Your task to perform on an android device: add a contact Image 0: 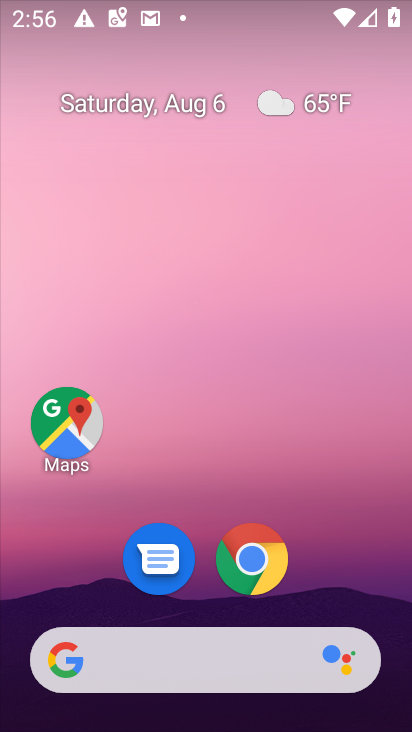
Step 0: drag from (231, 463) to (231, 125)
Your task to perform on an android device: add a contact Image 1: 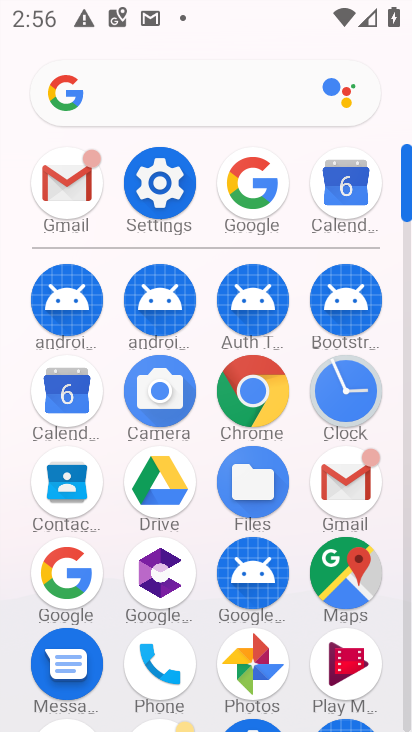
Step 1: click (62, 493)
Your task to perform on an android device: add a contact Image 2: 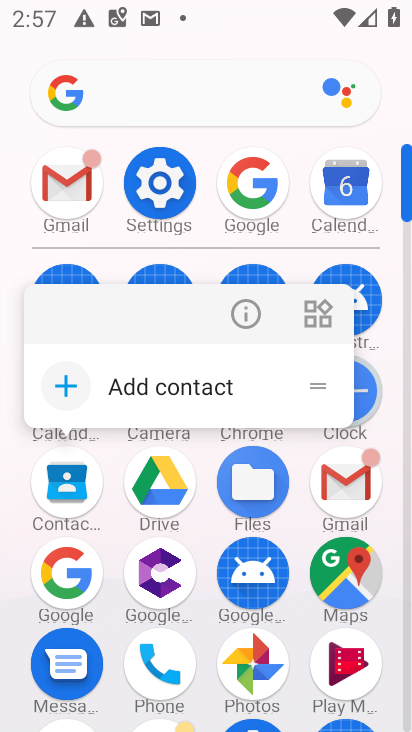
Step 2: click (82, 486)
Your task to perform on an android device: add a contact Image 3: 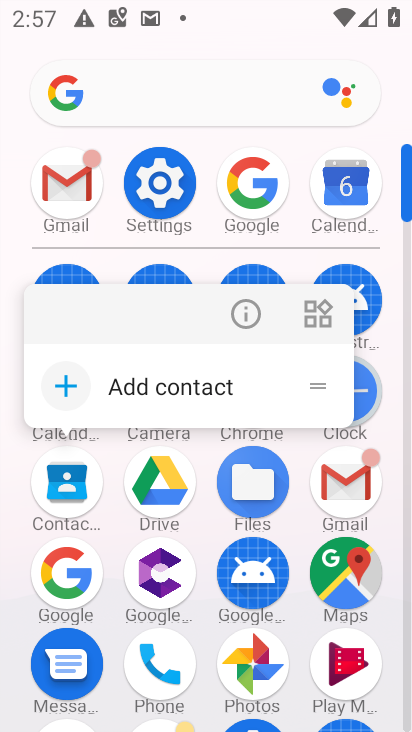
Step 3: click (80, 467)
Your task to perform on an android device: add a contact Image 4: 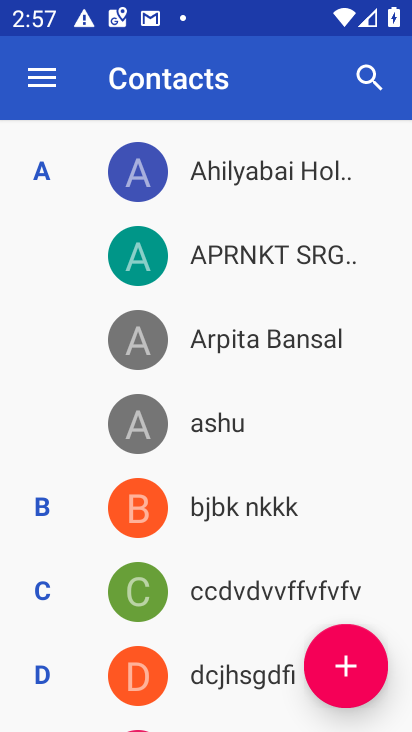
Step 4: click (316, 677)
Your task to perform on an android device: add a contact Image 5: 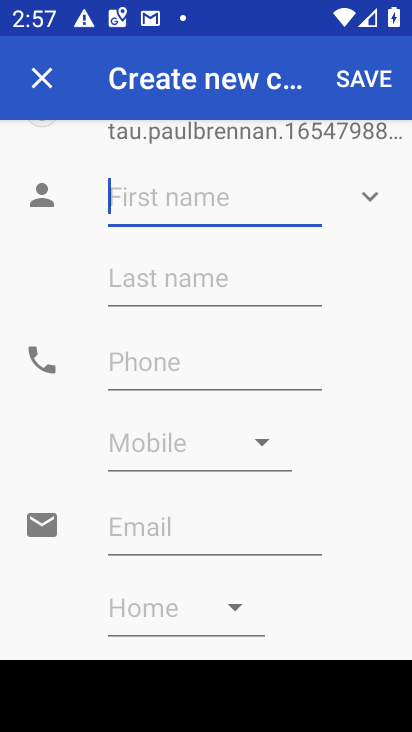
Step 5: type "gngvn"
Your task to perform on an android device: add a contact Image 6: 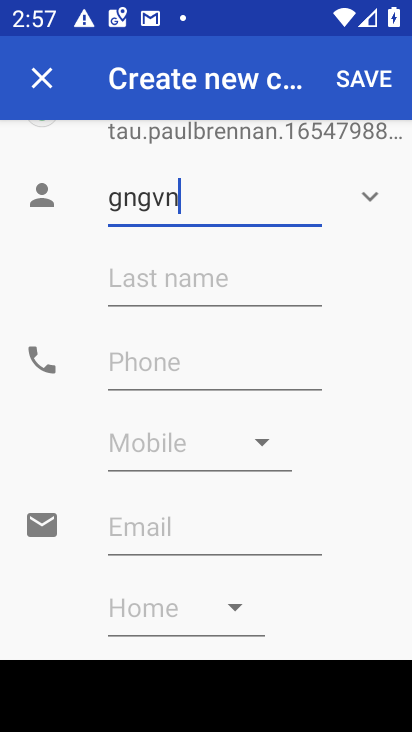
Step 6: type ""
Your task to perform on an android device: add a contact Image 7: 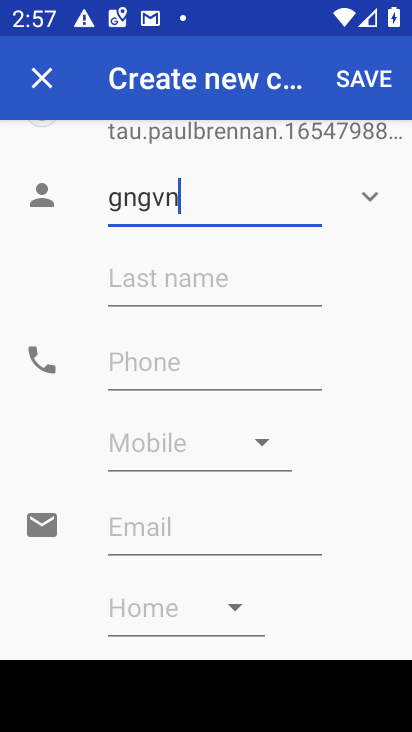
Step 7: click (214, 380)
Your task to perform on an android device: add a contact Image 8: 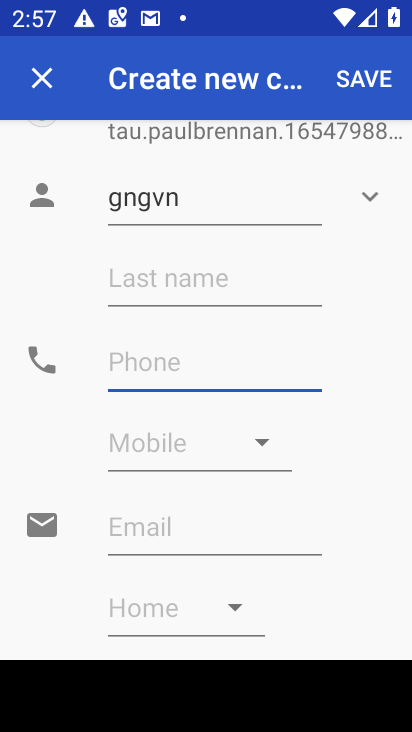
Step 8: type "745754754745"
Your task to perform on an android device: add a contact Image 9: 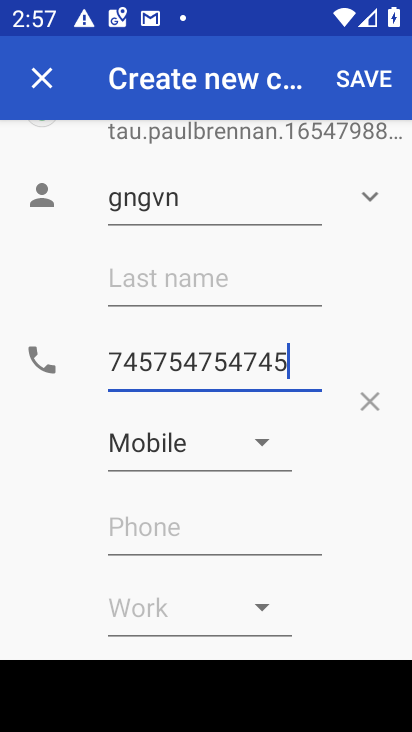
Step 9: type ""
Your task to perform on an android device: add a contact Image 10: 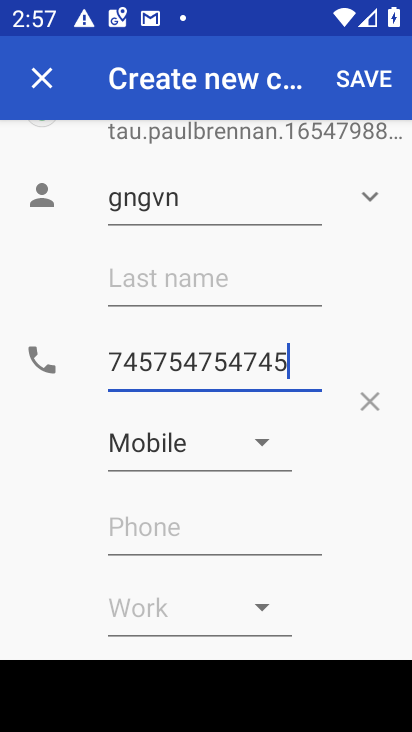
Step 10: click (365, 84)
Your task to perform on an android device: add a contact Image 11: 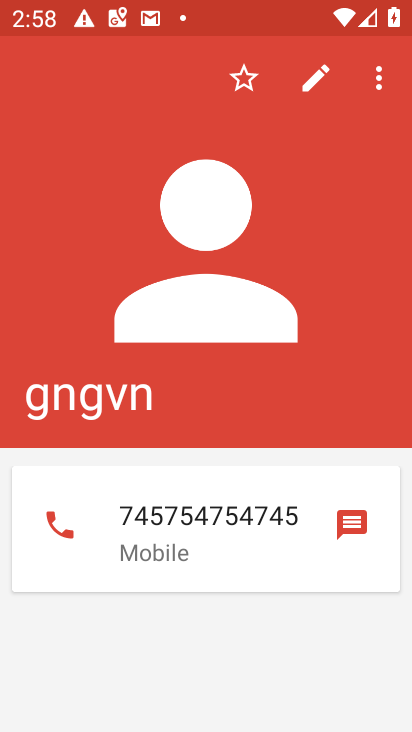
Step 11: task complete